Your task to perform on an android device: star an email in the gmail app Image 0: 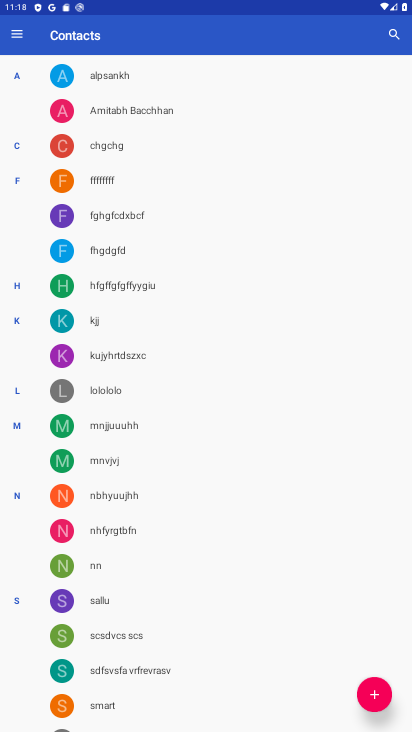
Step 0: press home button
Your task to perform on an android device: star an email in the gmail app Image 1: 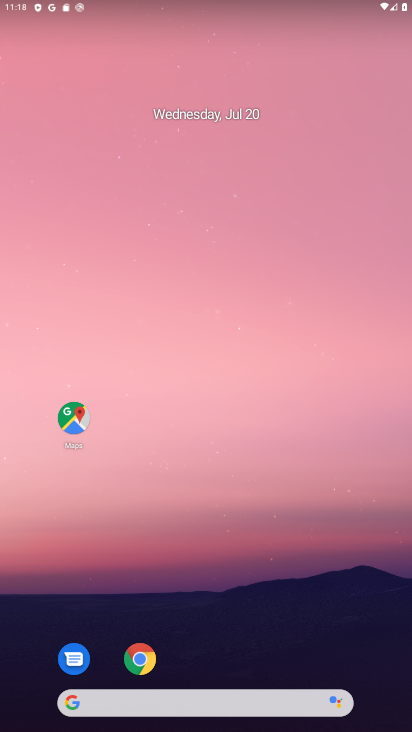
Step 1: drag from (375, 667) to (343, 150)
Your task to perform on an android device: star an email in the gmail app Image 2: 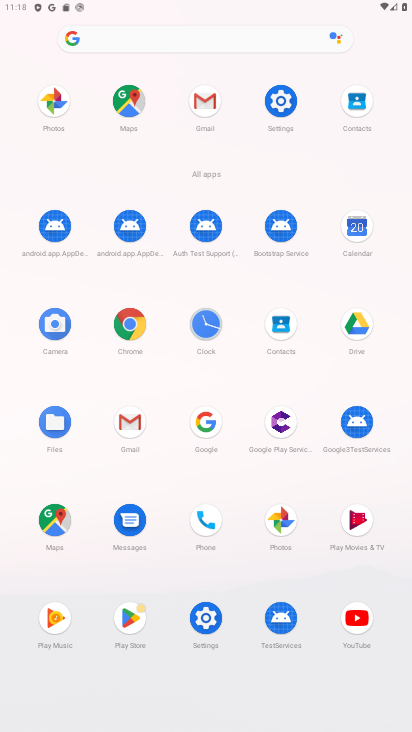
Step 2: click (129, 423)
Your task to perform on an android device: star an email in the gmail app Image 3: 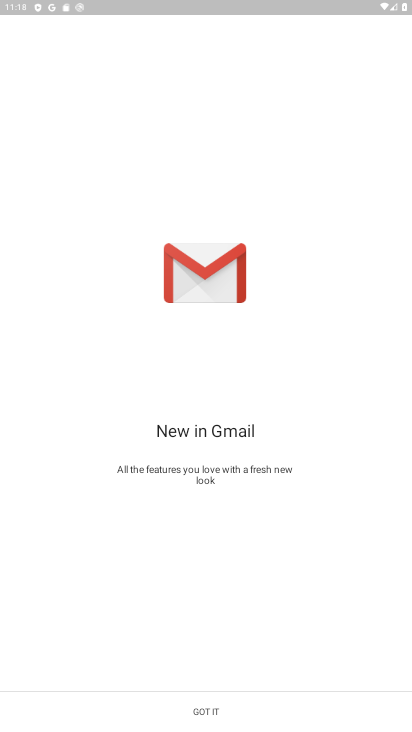
Step 3: click (201, 702)
Your task to perform on an android device: star an email in the gmail app Image 4: 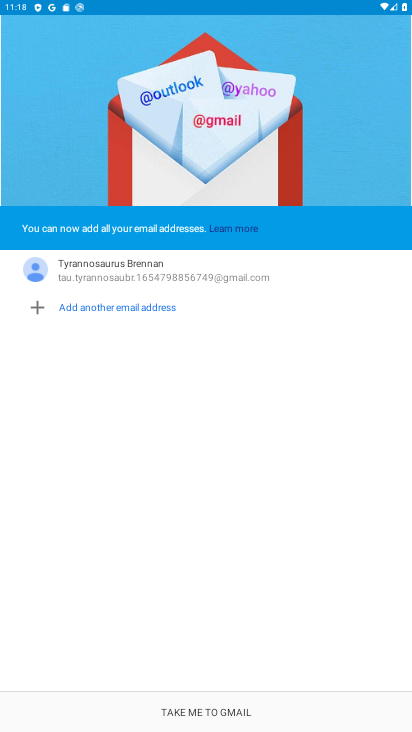
Step 4: click (203, 705)
Your task to perform on an android device: star an email in the gmail app Image 5: 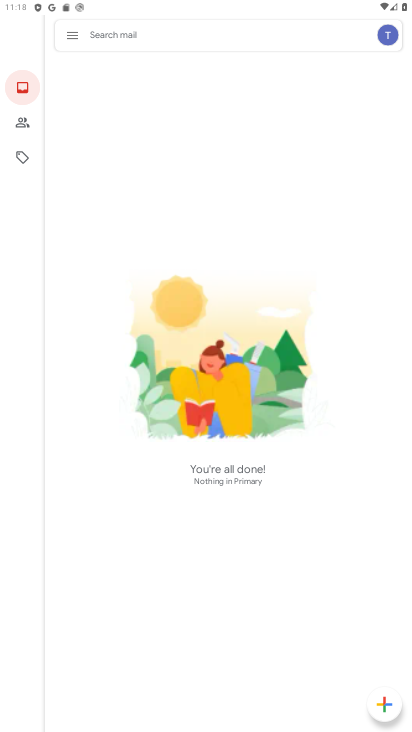
Step 5: click (68, 35)
Your task to perform on an android device: star an email in the gmail app Image 6: 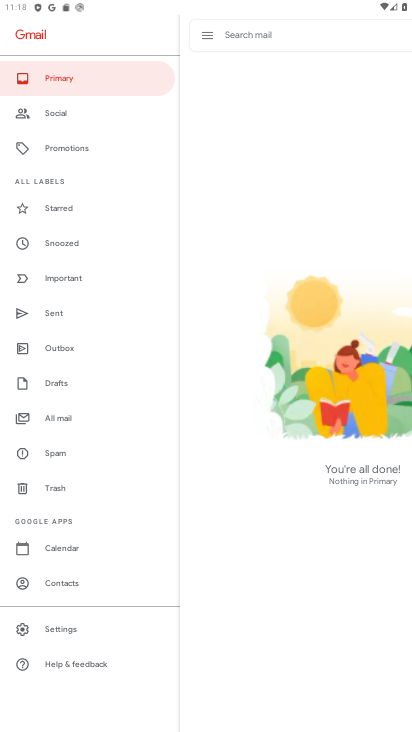
Step 6: click (71, 416)
Your task to perform on an android device: star an email in the gmail app Image 7: 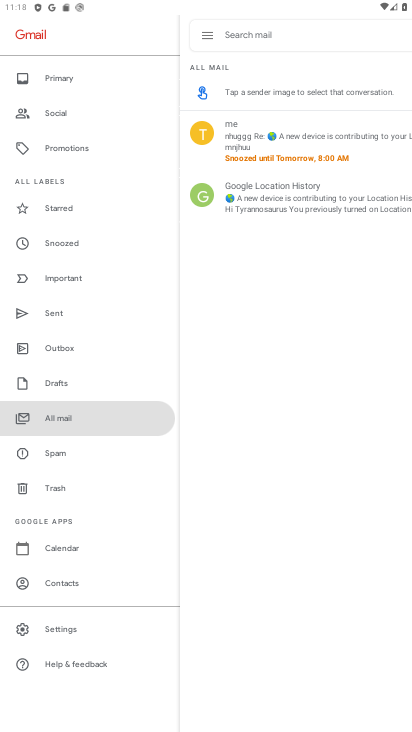
Step 7: click (332, 196)
Your task to perform on an android device: star an email in the gmail app Image 8: 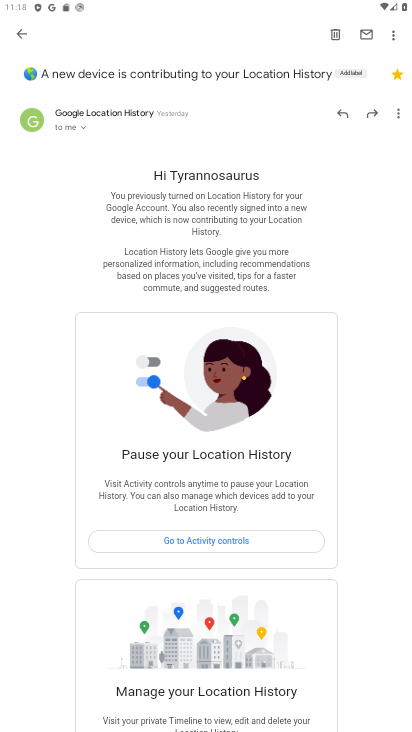
Step 8: task complete